Your task to perform on an android device: Open Google Chrome and open the bookmarks view Image 0: 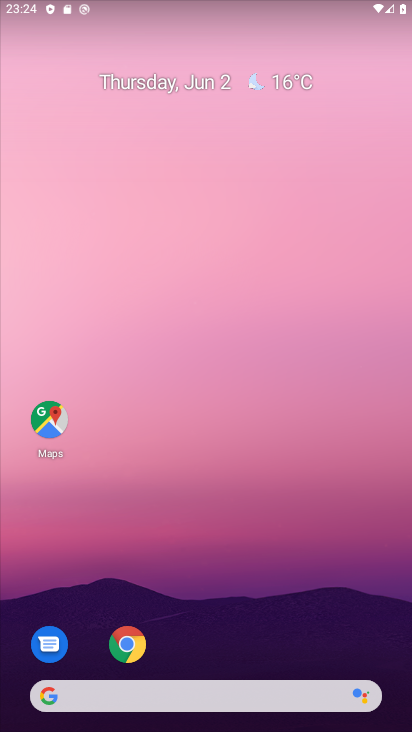
Step 0: drag from (224, 651) to (279, 343)
Your task to perform on an android device: Open Google Chrome and open the bookmarks view Image 1: 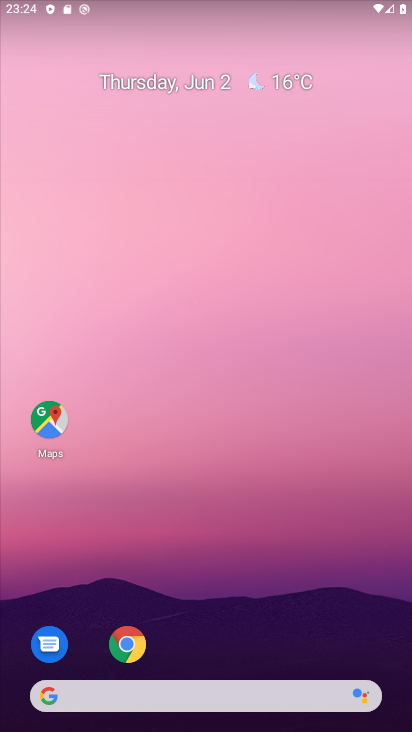
Step 1: drag from (213, 653) to (345, 282)
Your task to perform on an android device: Open Google Chrome and open the bookmarks view Image 2: 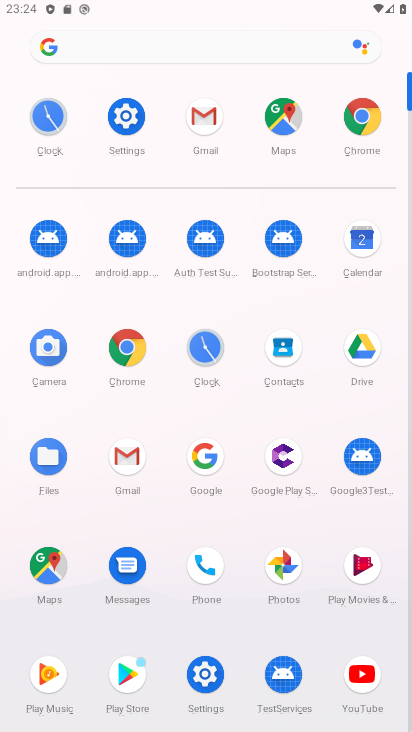
Step 2: click (125, 341)
Your task to perform on an android device: Open Google Chrome and open the bookmarks view Image 3: 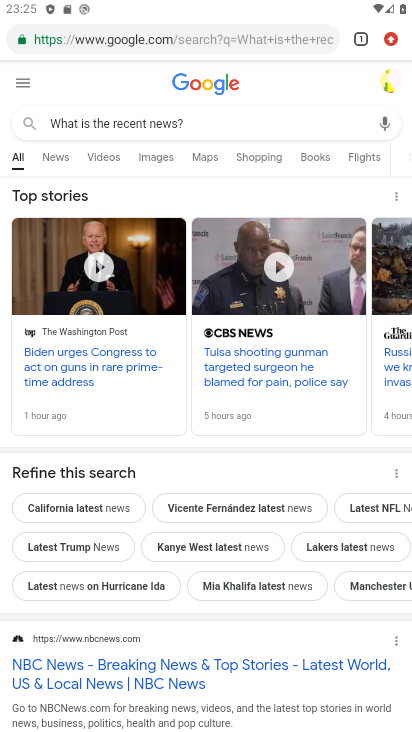
Step 3: click (394, 42)
Your task to perform on an android device: Open Google Chrome and open the bookmarks view Image 4: 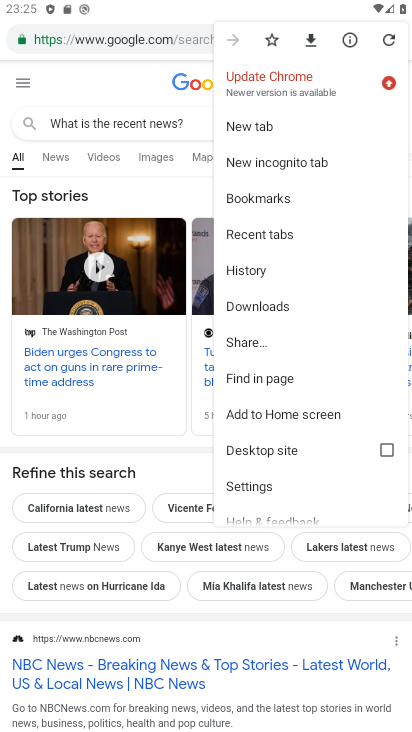
Step 4: click (266, 203)
Your task to perform on an android device: Open Google Chrome and open the bookmarks view Image 5: 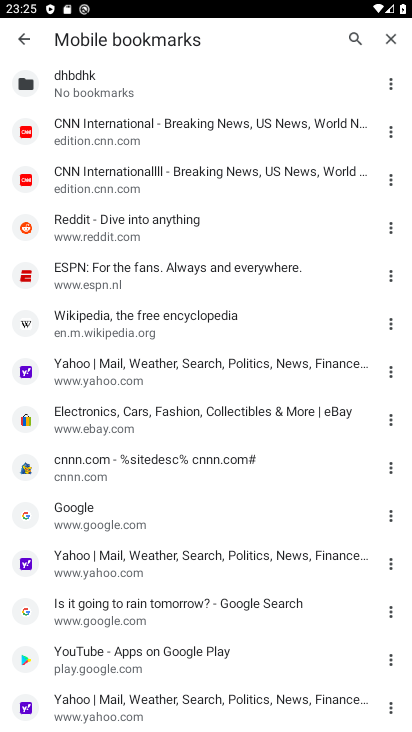
Step 5: task complete